Your task to perform on an android device: turn smart compose on in the gmail app Image 0: 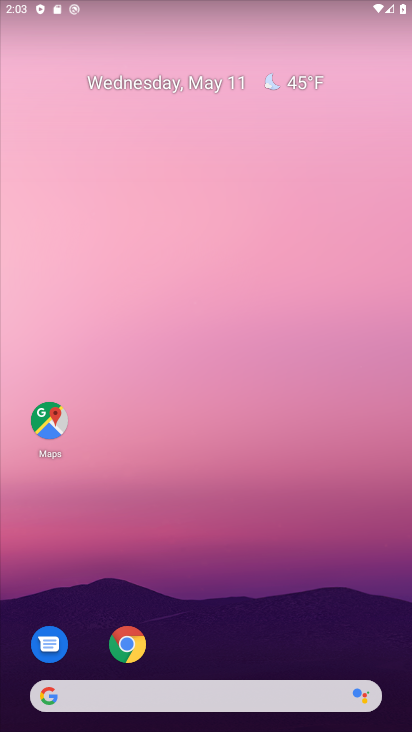
Step 0: drag from (185, 620) to (287, 90)
Your task to perform on an android device: turn smart compose on in the gmail app Image 1: 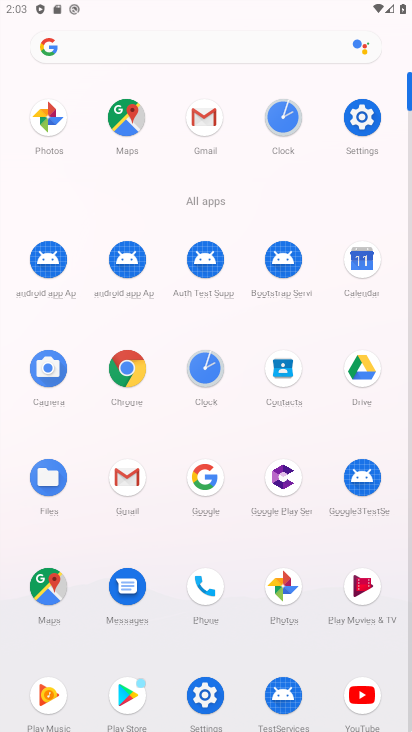
Step 1: click (196, 113)
Your task to perform on an android device: turn smart compose on in the gmail app Image 2: 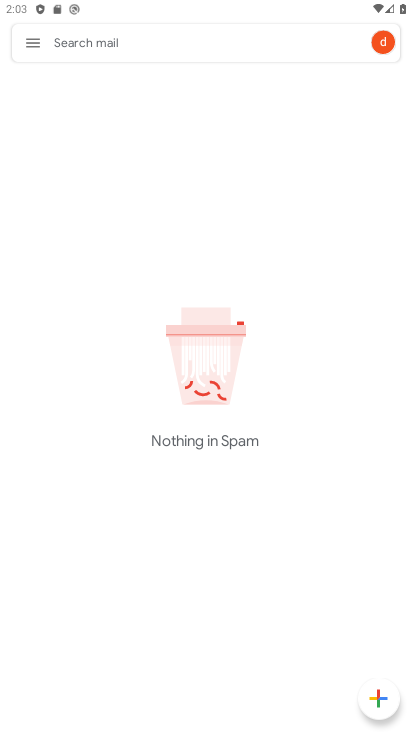
Step 2: click (24, 39)
Your task to perform on an android device: turn smart compose on in the gmail app Image 3: 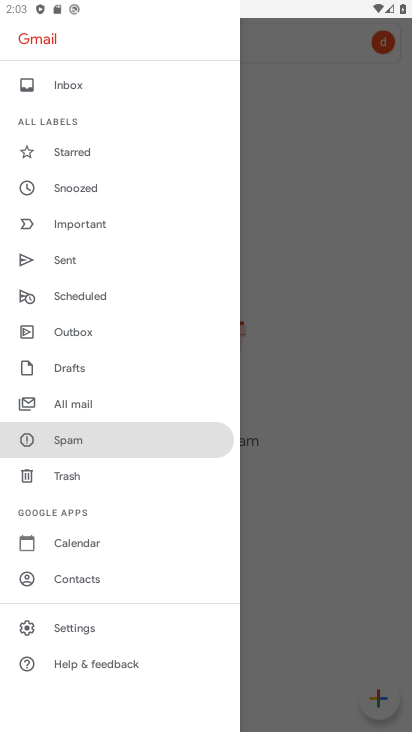
Step 3: click (90, 631)
Your task to perform on an android device: turn smart compose on in the gmail app Image 4: 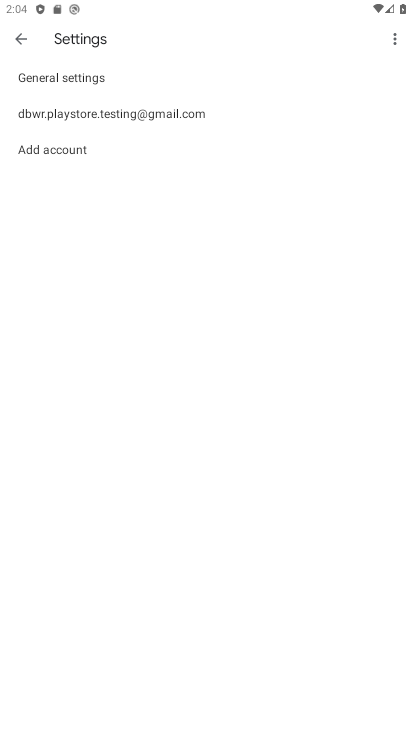
Step 4: click (85, 121)
Your task to perform on an android device: turn smart compose on in the gmail app Image 5: 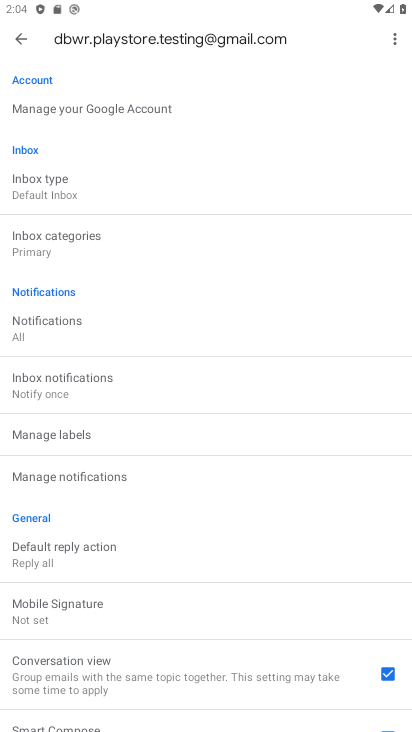
Step 5: task complete